Your task to perform on an android device: Open accessibility settings Image 0: 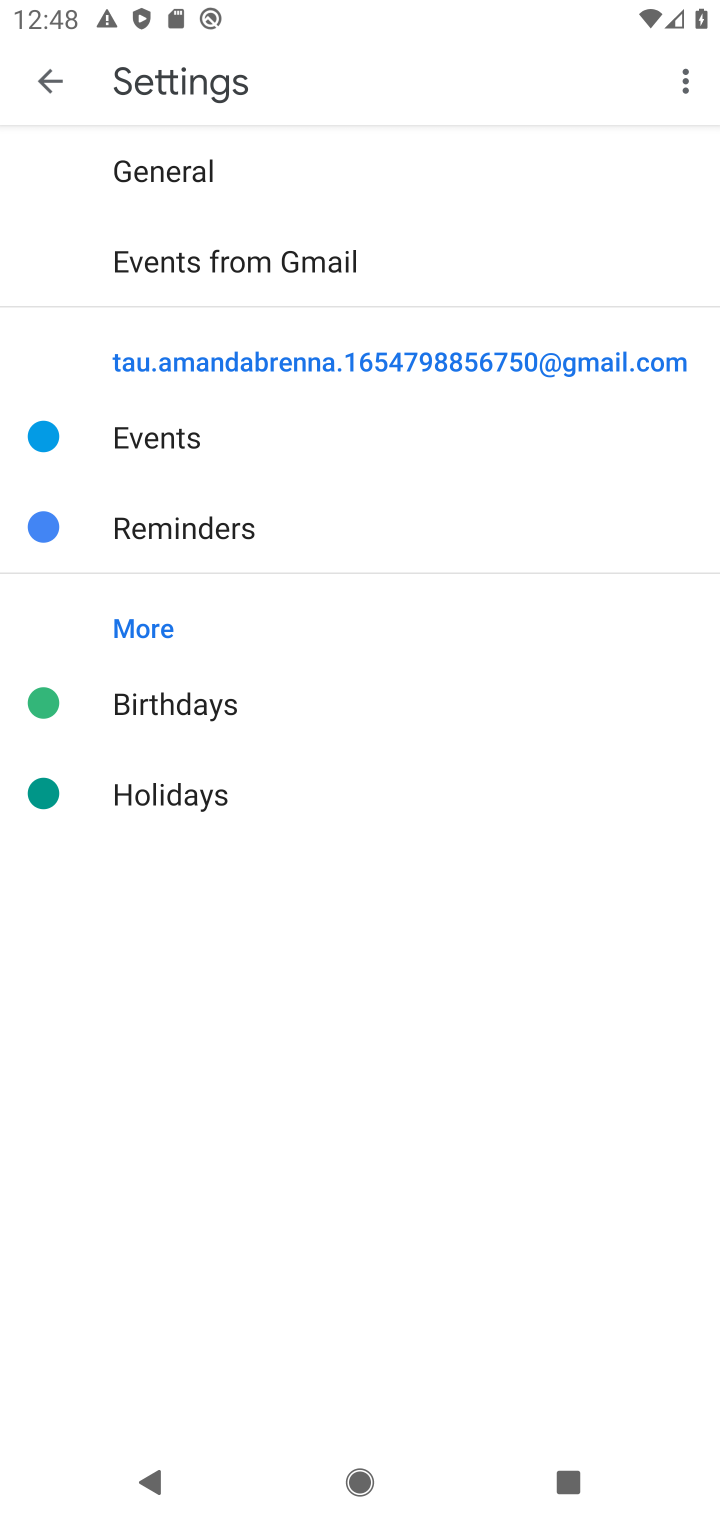
Step 0: press home button
Your task to perform on an android device: Open accessibility settings Image 1: 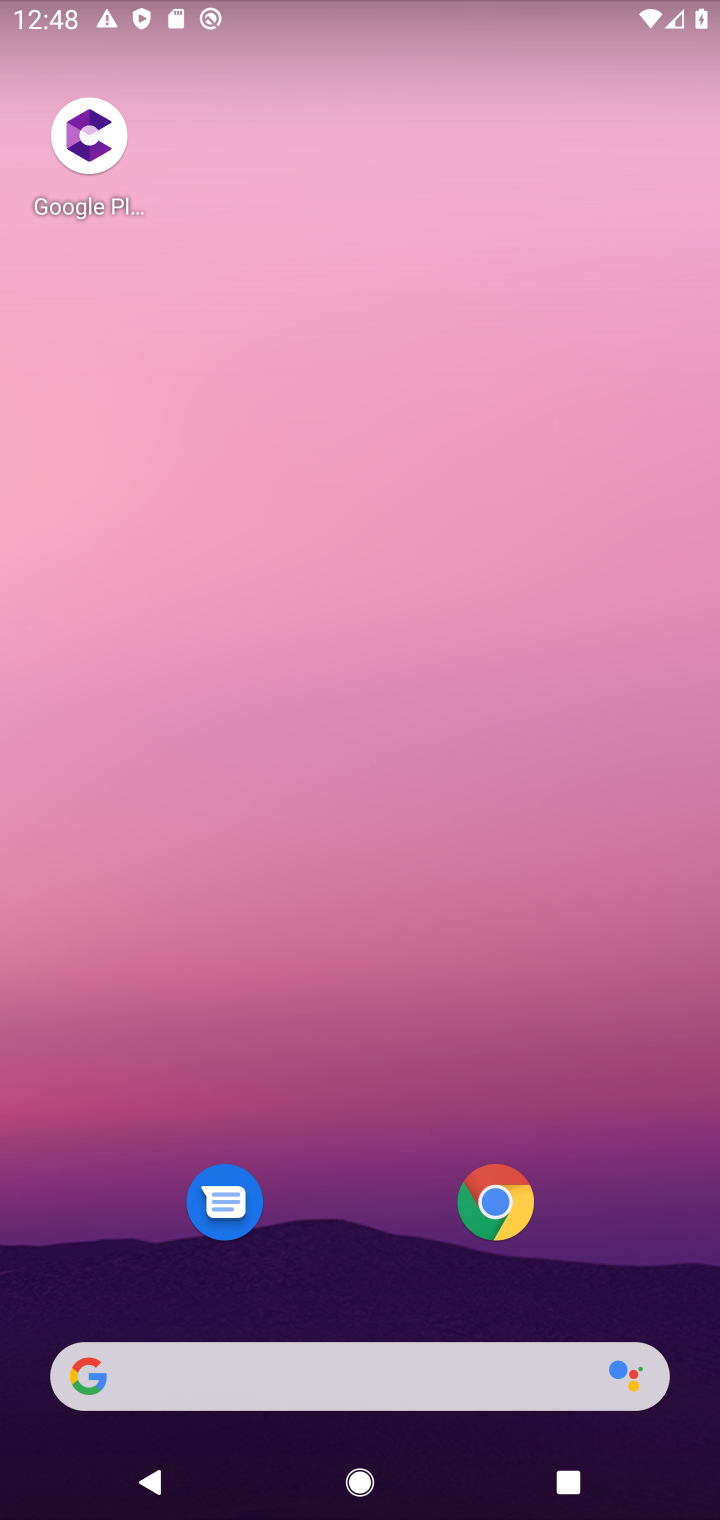
Step 1: drag from (384, 907) to (445, 42)
Your task to perform on an android device: Open accessibility settings Image 2: 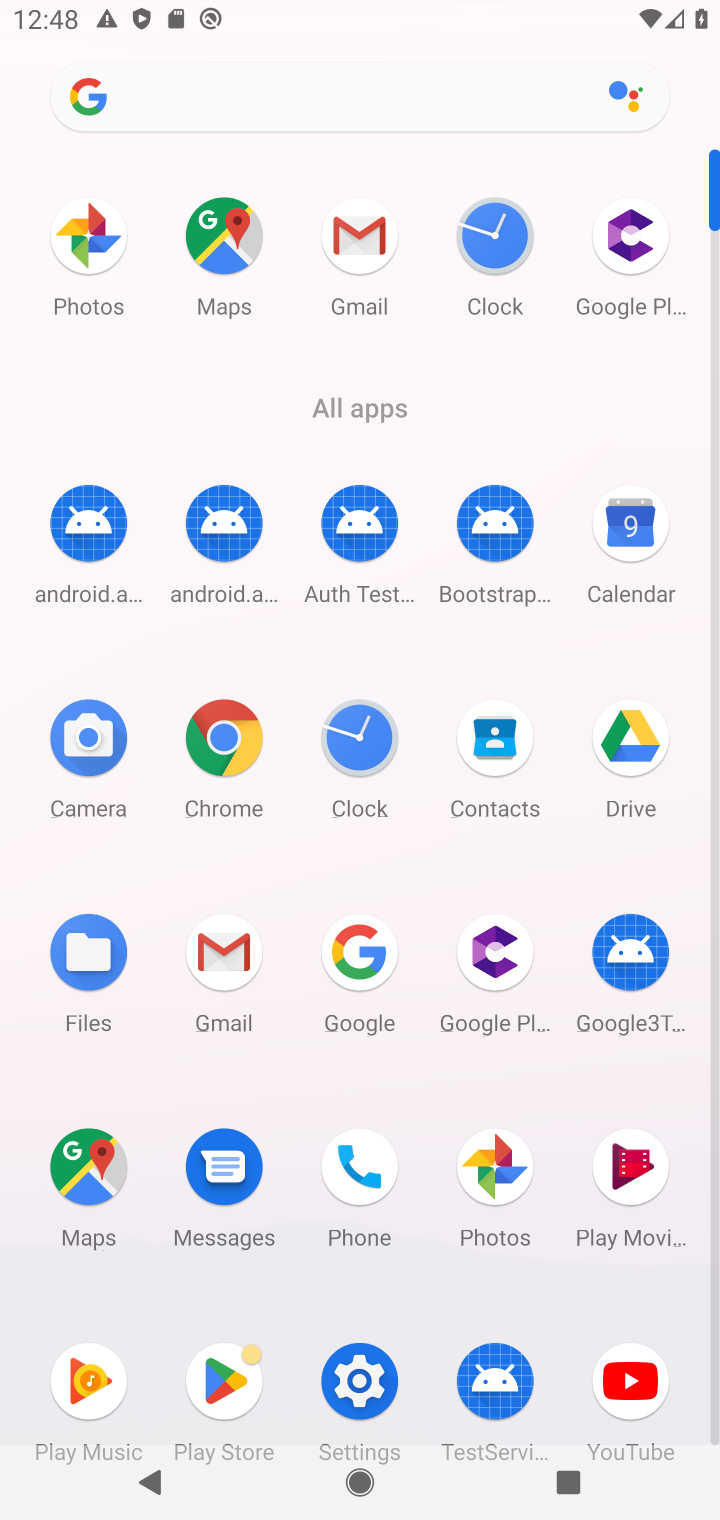
Step 2: click (360, 1377)
Your task to perform on an android device: Open accessibility settings Image 3: 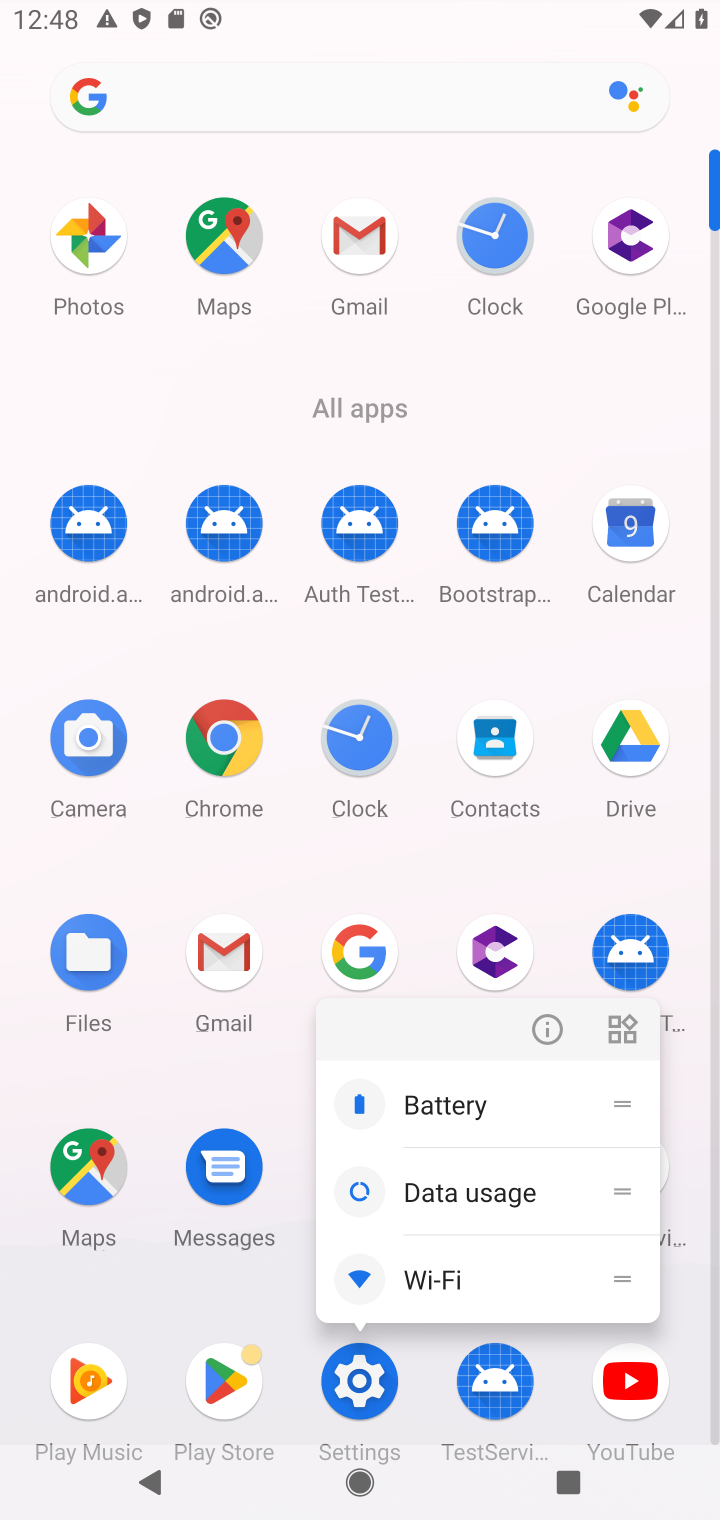
Step 3: click (360, 1377)
Your task to perform on an android device: Open accessibility settings Image 4: 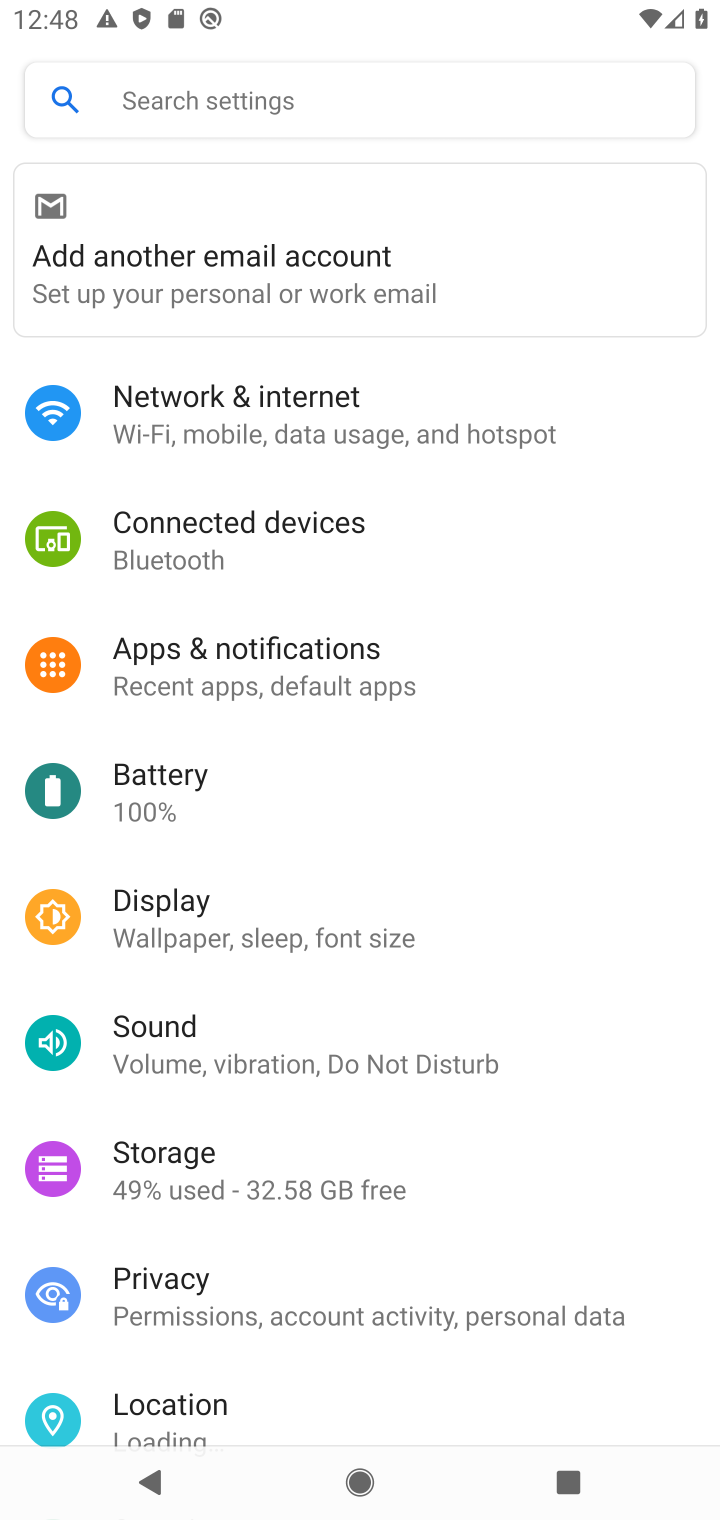
Step 4: drag from (310, 1341) to (294, 396)
Your task to perform on an android device: Open accessibility settings Image 5: 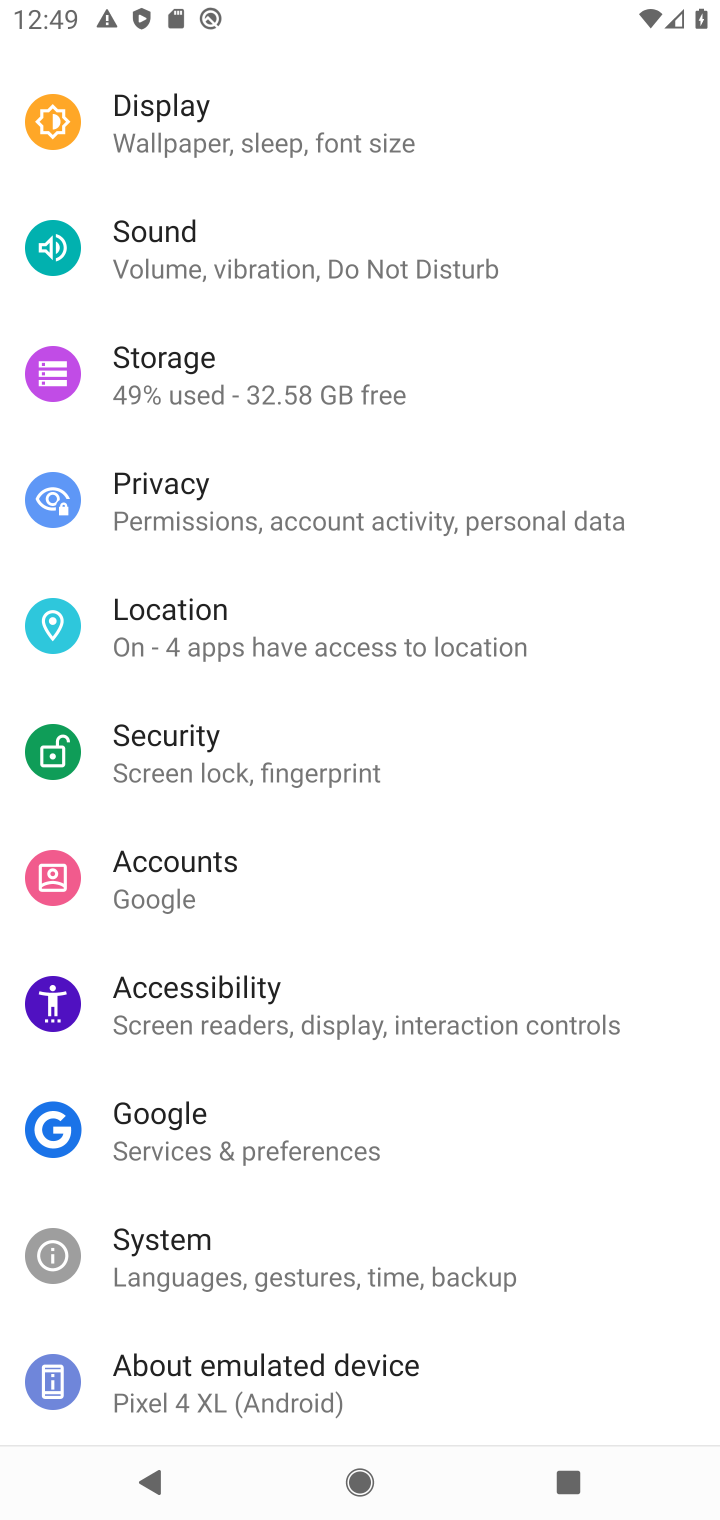
Step 5: click (223, 1003)
Your task to perform on an android device: Open accessibility settings Image 6: 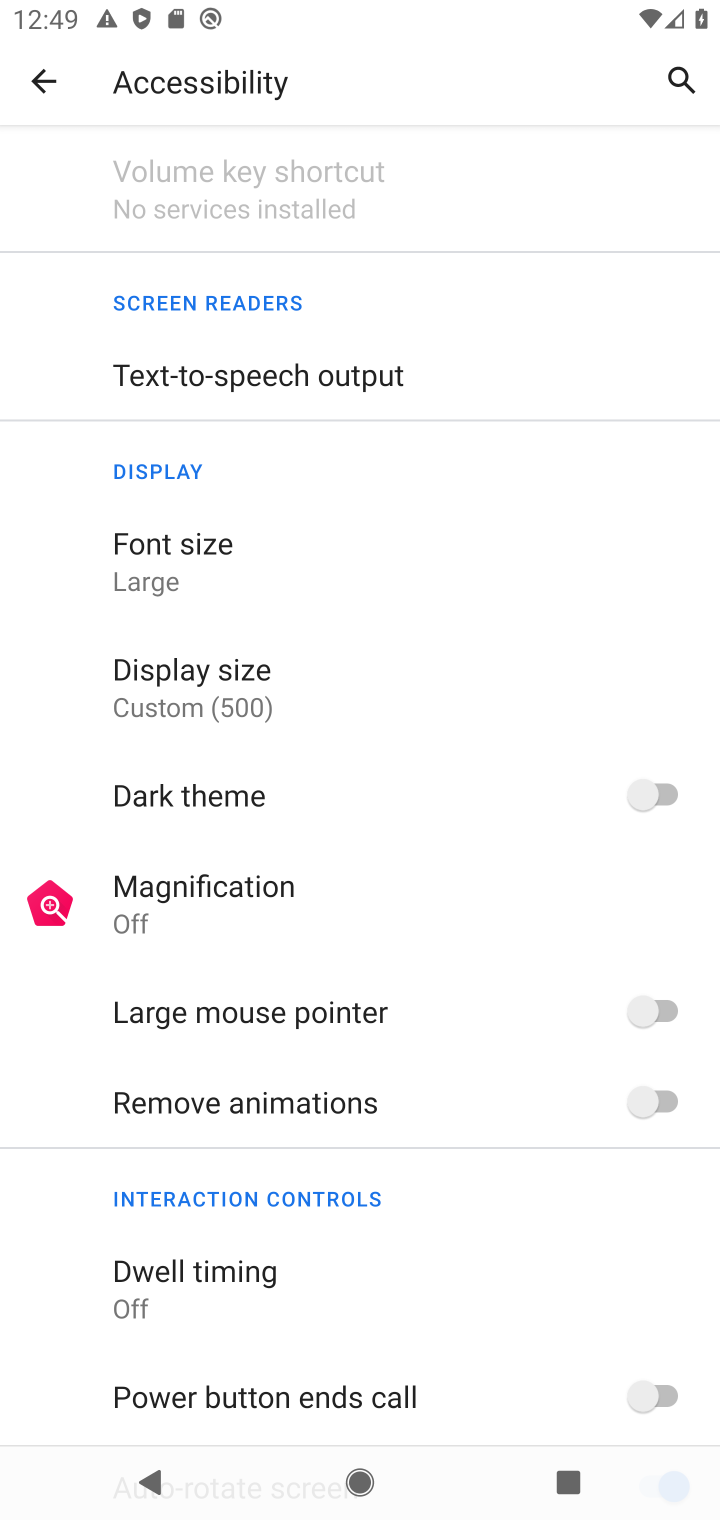
Step 6: task complete